Your task to perform on an android device: Open my contact list Image 0: 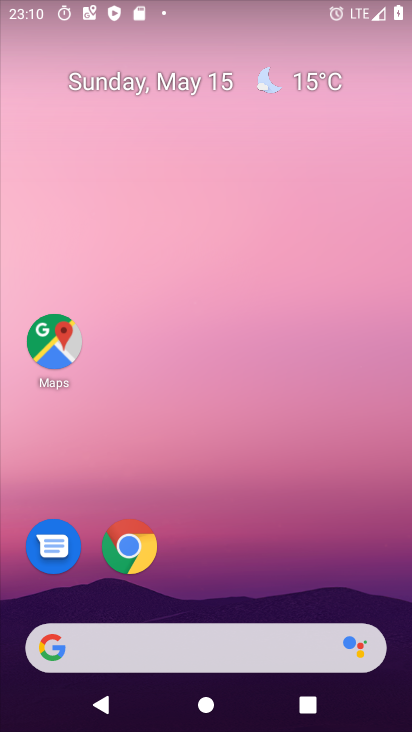
Step 0: drag from (306, 664) to (191, 59)
Your task to perform on an android device: Open my contact list Image 1: 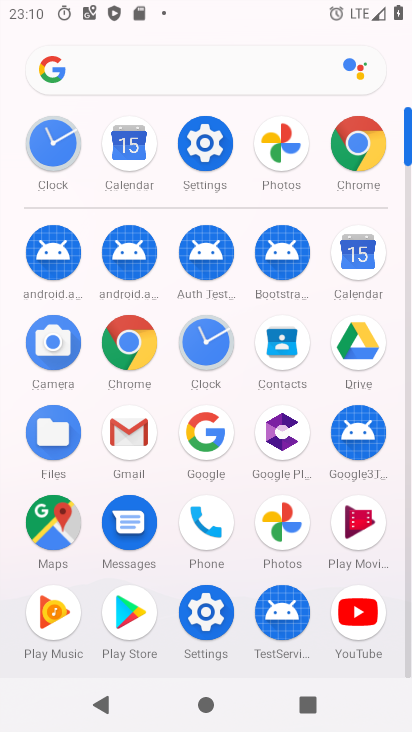
Step 1: click (287, 353)
Your task to perform on an android device: Open my contact list Image 2: 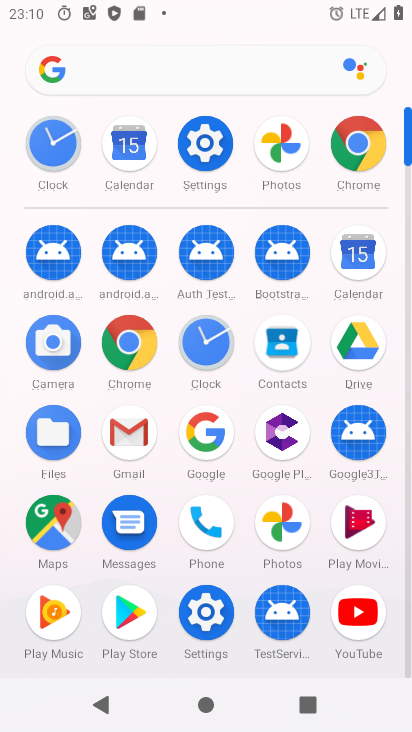
Step 2: click (287, 353)
Your task to perform on an android device: Open my contact list Image 3: 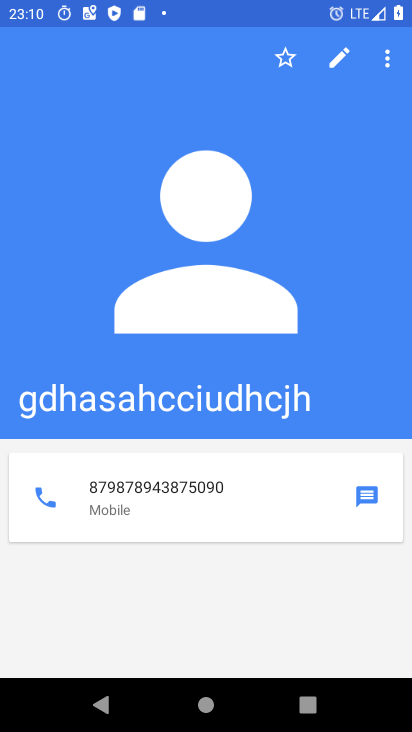
Step 3: task complete